Your task to perform on an android device: Go to eBay Image 0: 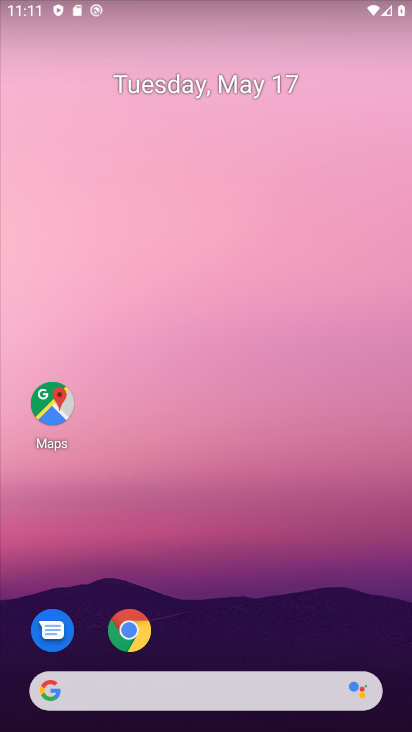
Step 0: click (136, 639)
Your task to perform on an android device: Go to eBay Image 1: 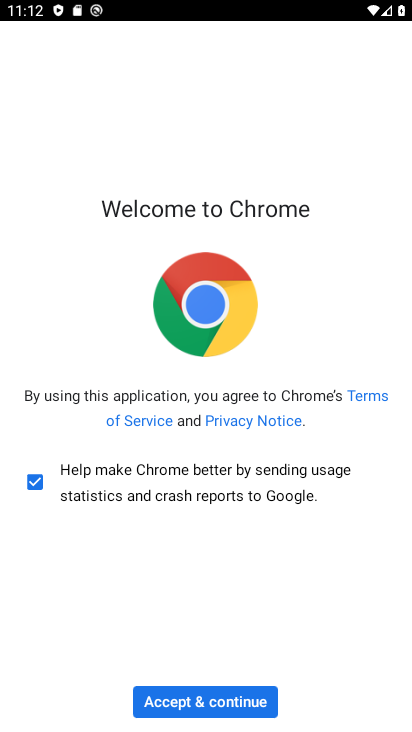
Step 1: click (205, 688)
Your task to perform on an android device: Go to eBay Image 2: 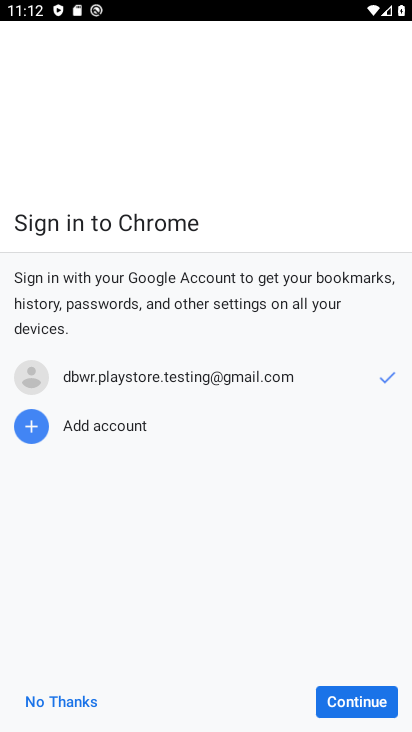
Step 2: click (333, 695)
Your task to perform on an android device: Go to eBay Image 3: 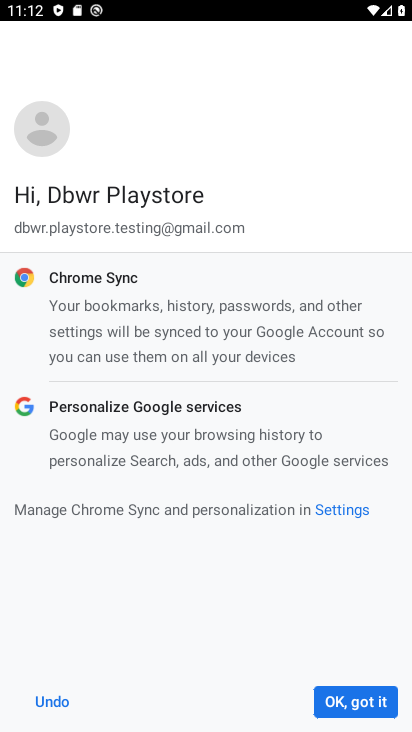
Step 3: click (386, 698)
Your task to perform on an android device: Go to eBay Image 4: 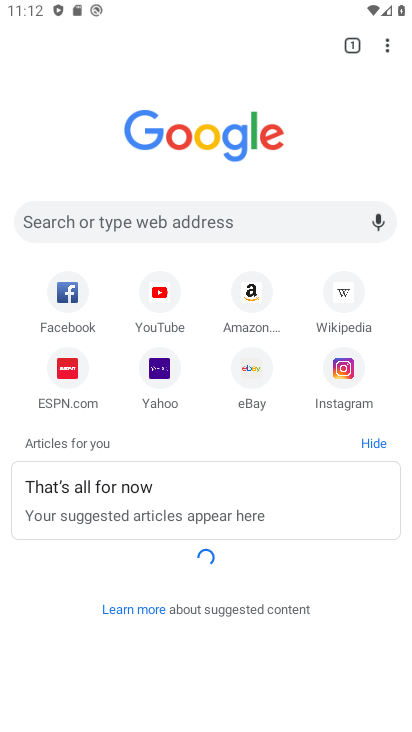
Step 4: click (250, 376)
Your task to perform on an android device: Go to eBay Image 5: 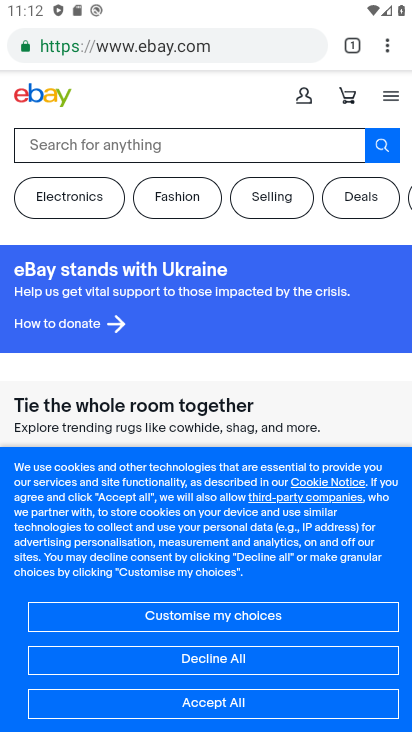
Step 5: task complete